Your task to perform on an android device: toggle airplane mode Image 0: 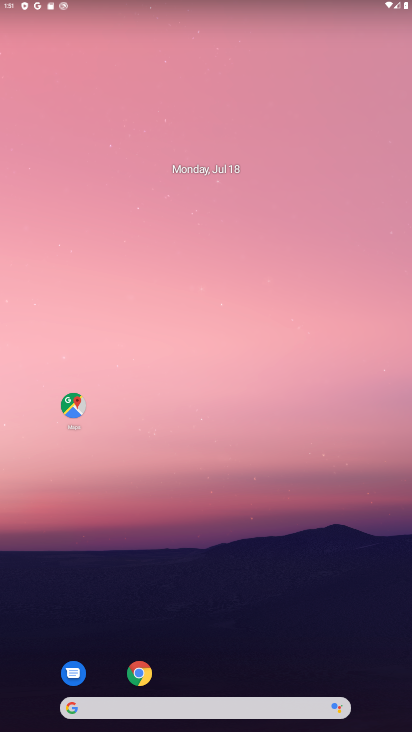
Step 0: drag from (184, 711) to (199, 257)
Your task to perform on an android device: toggle airplane mode Image 1: 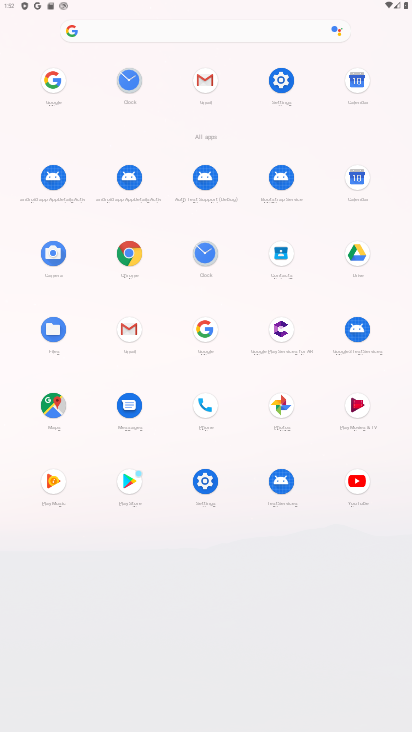
Step 1: click (281, 81)
Your task to perform on an android device: toggle airplane mode Image 2: 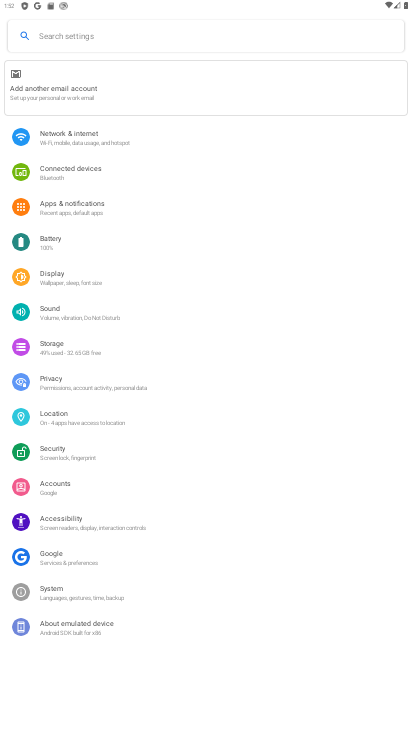
Step 2: click (72, 143)
Your task to perform on an android device: toggle airplane mode Image 3: 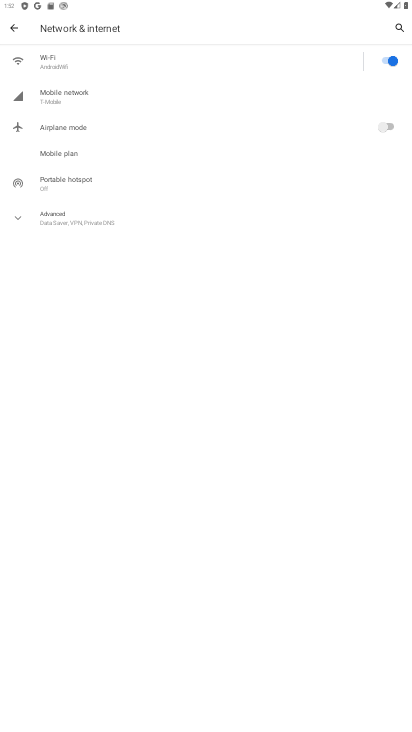
Step 3: click (387, 123)
Your task to perform on an android device: toggle airplane mode Image 4: 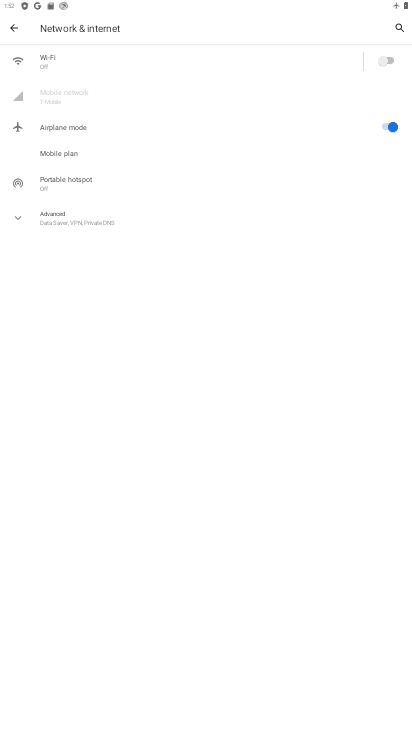
Step 4: task complete